Your task to perform on an android device: Go to accessibility settings Image 0: 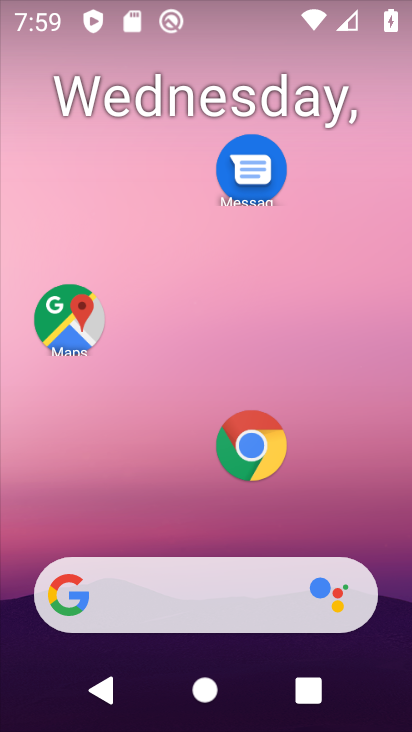
Step 0: drag from (171, 316) to (143, 96)
Your task to perform on an android device: Go to accessibility settings Image 1: 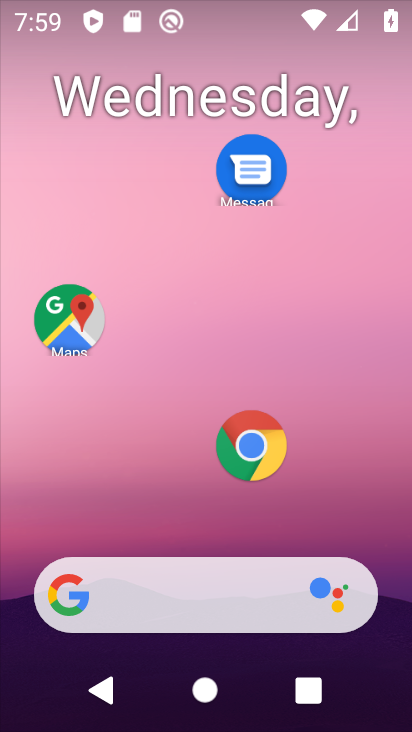
Step 1: drag from (270, 571) to (247, 109)
Your task to perform on an android device: Go to accessibility settings Image 2: 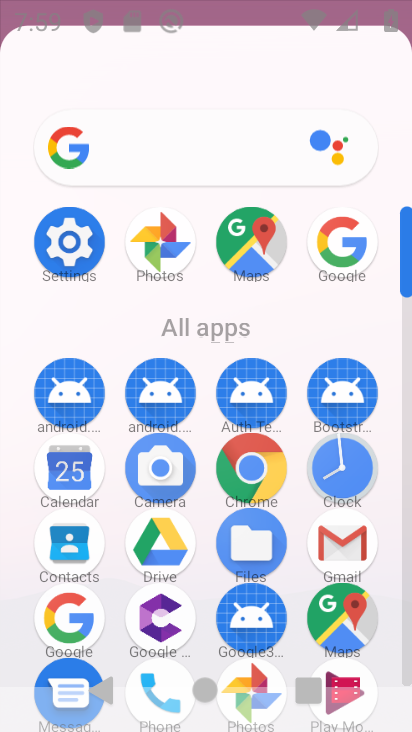
Step 2: drag from (227, 541) to (164, 227)
Your task to perform on an android device: Go to accessibility settings Image 3: 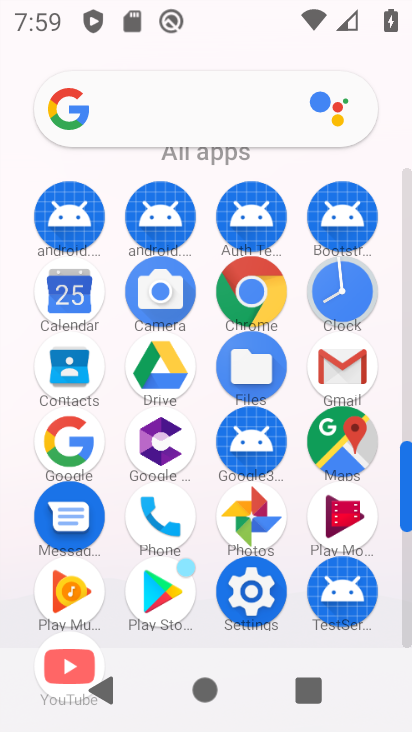
Step 3: click (233, 611)
Your task to perform on an android device: Go to accessibility settings Image 4: 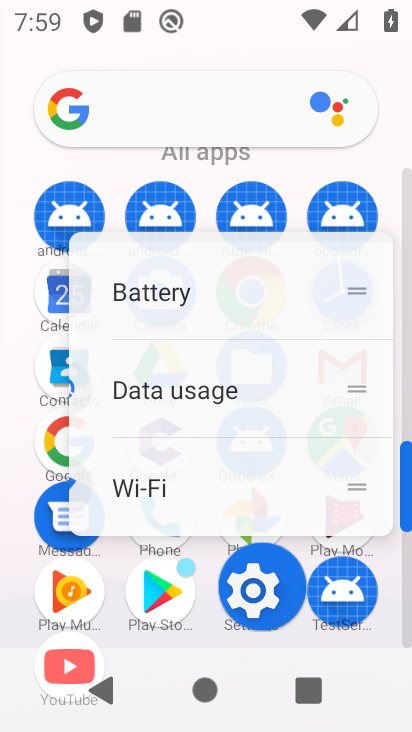
Step 4: click (246, 604)
Your task to perform on an android device: Go to accessibility settings Image 5: 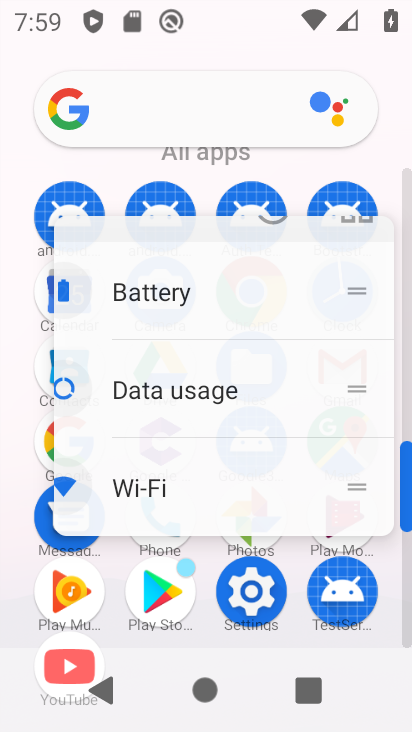
Step 5: click (246, 604)
Your task to perform on an android device: Go to accessibility settings Image 6: 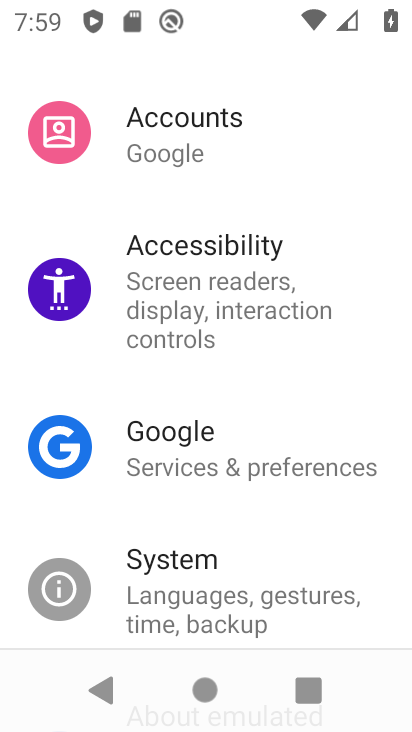
Step 6: click (168, 311)
Your task to perform on an android device: Go to accessibility settings Image 7: 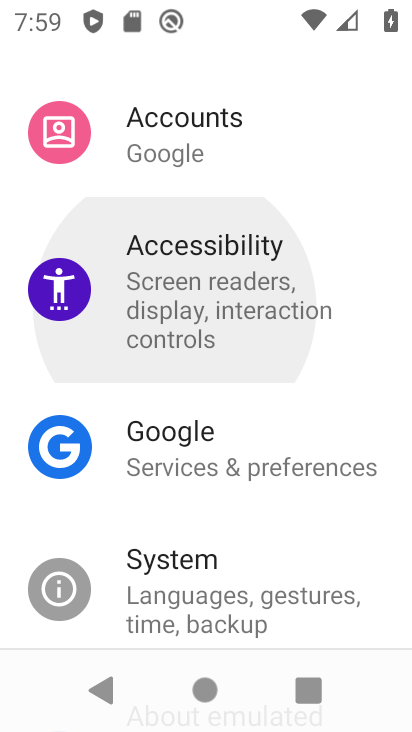
Step 7: click (168, 311)
Your task to perform on an android device: Go to accessibility settings Image 8: 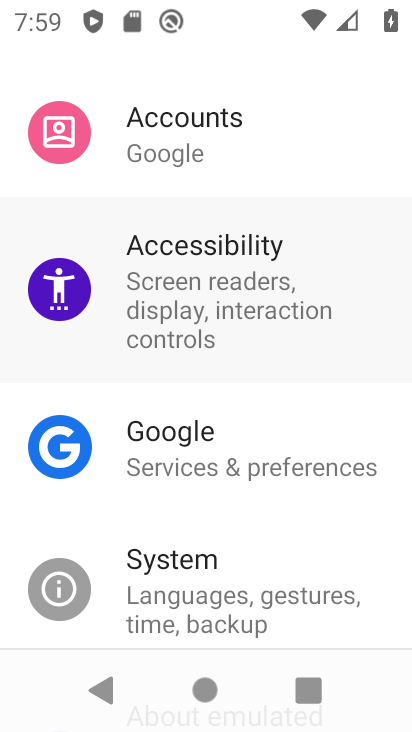
Step 8: click (171, 308)
Your task to perform on an android device: Go to accessibility settings Image 9: 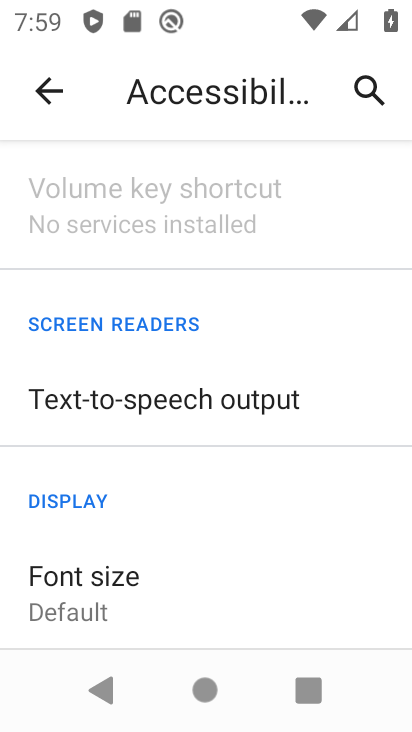
Step 9: task complete